Your task to perform on an android device: Search for sushi restaurants on Maps Image 0: 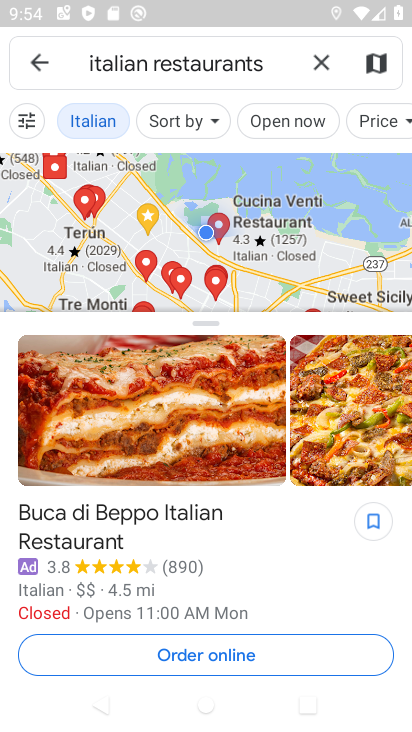
Step 0: click (196, 75)
Your task to perform on an android device: Search for sushi restaurants on Maps Image 1: 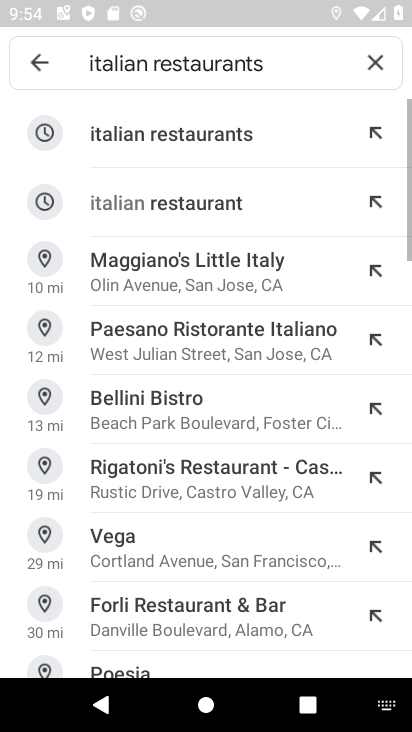
Step 1: click (375, 61)
Your task to perform on an android device: Search for sushi restaurants on Maps Image 2: 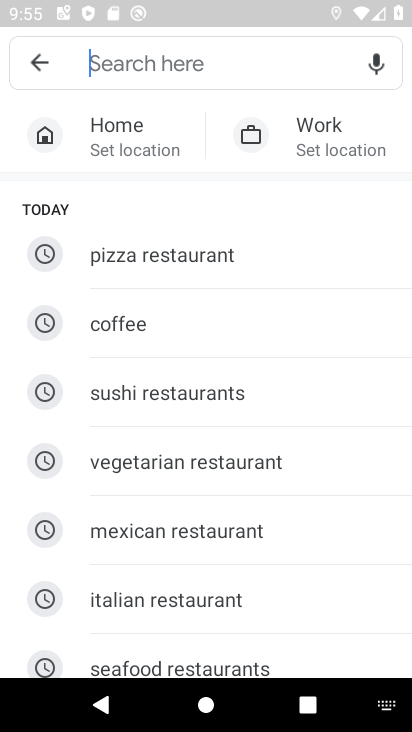
Step 2: type "sushi restaurants"
Your task to perform on an android device: Search for sushi restaurants on Maps Image 3: 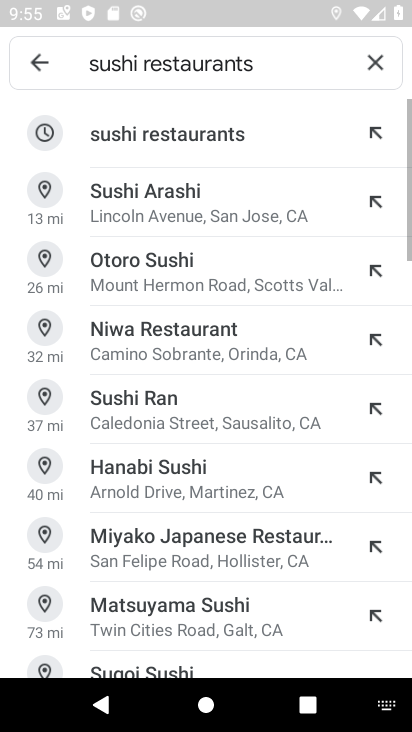
Step 3: click (120, 135)
Your task to perform on an android device: Search for sushi restaurants on Maps Image 4: 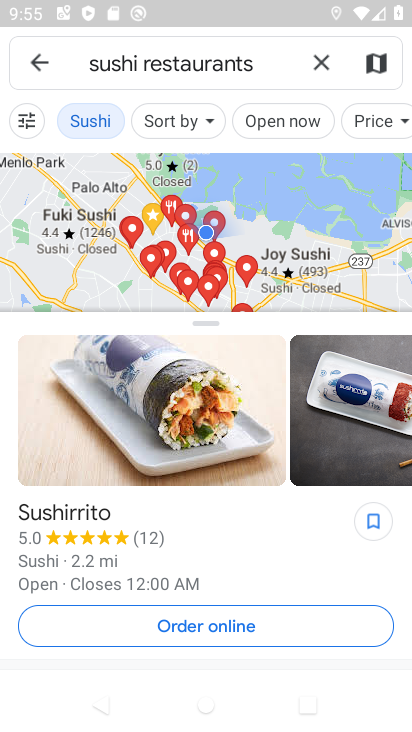
Step 4: task complete